Your task to perform on an android device: open a bookmark in the chrome app Image 0: 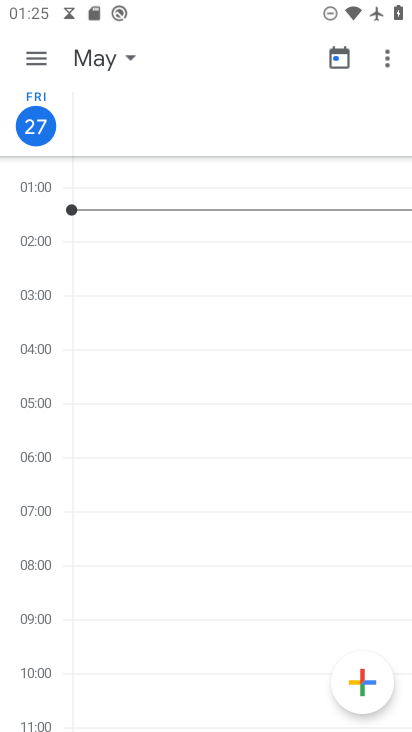
Step 0: press home button
Your task to perform on an android device: open a bookmark in the chrome app Image 1: 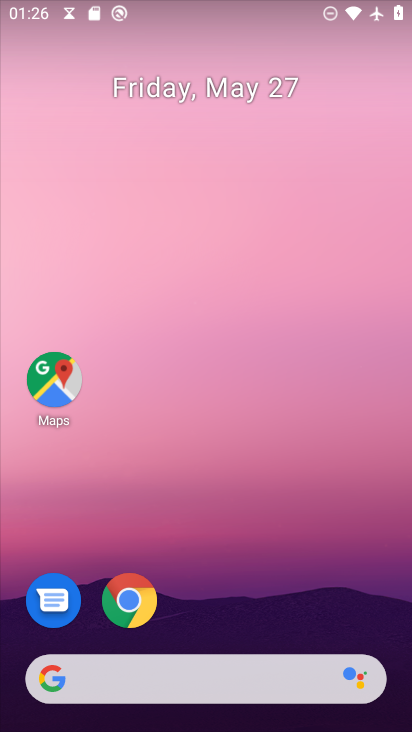
Step 1: drag from (227, 471) to (255, 92)
Your task to perform on an android device: open a bookmark in the chrome app Image 2: 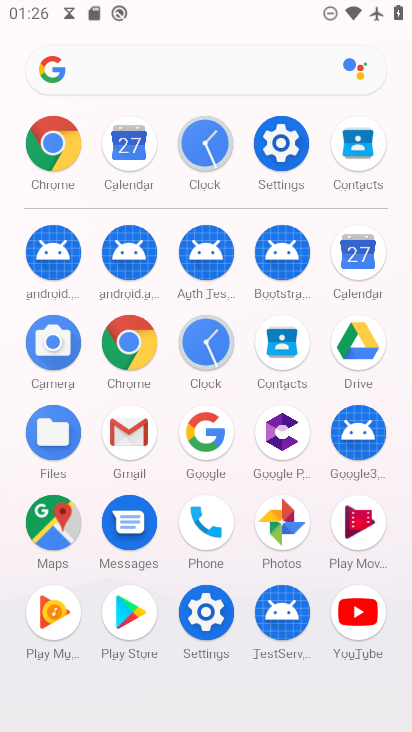
Step 2: click (142, 338)
Your task to perform on an android device: open a bookmark in the chrome app Image 3: 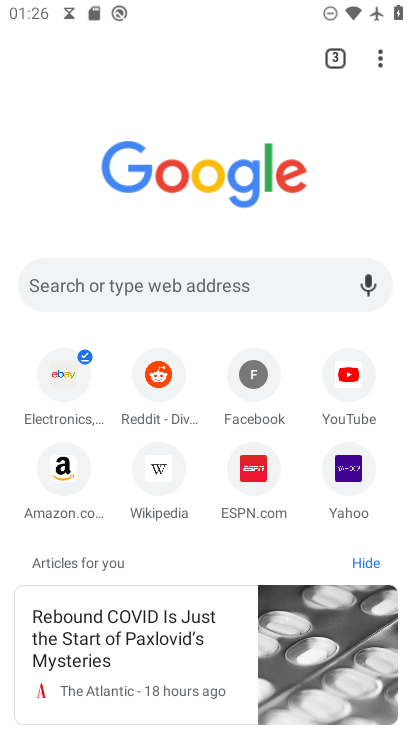
Step 3: click (375, 64)
Your task to perform on an android device: open a bookmark in the chrome app Image 4: 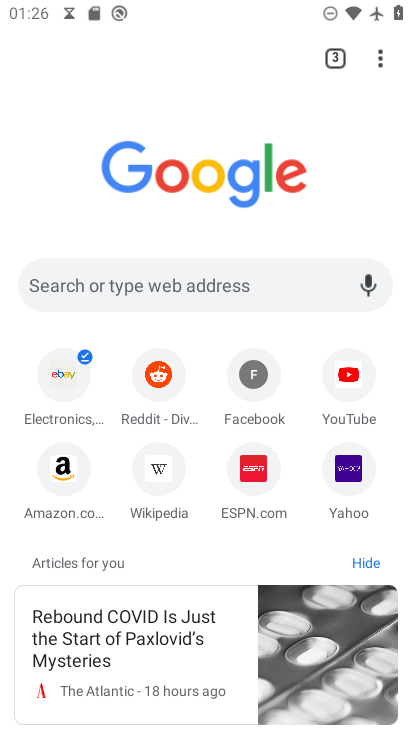
Step 4: click (392, 48)
Your task to perform on an android device: open a bookmark in the chrome app Image 5: 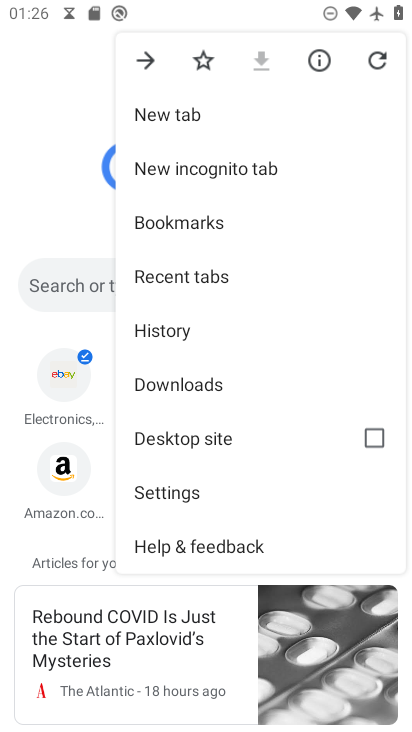
Step 5: click (167, 223)
Your task to perform on an android device: open a bookmark in the chrome app Image 6: 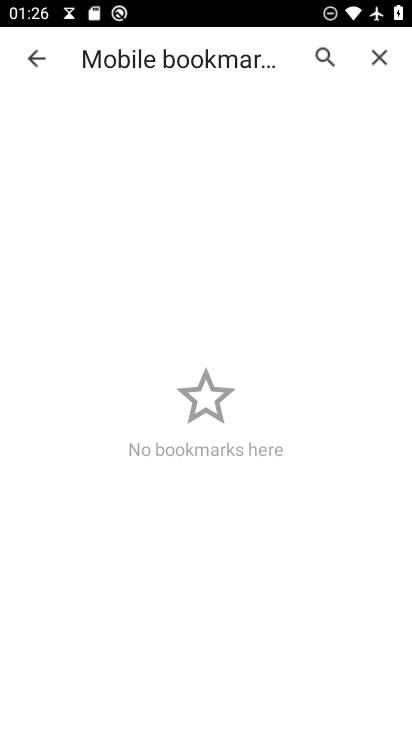
Step 6: task complete